Your task to perform on an android device: Search for Italian restaurants on Maps Image 0: 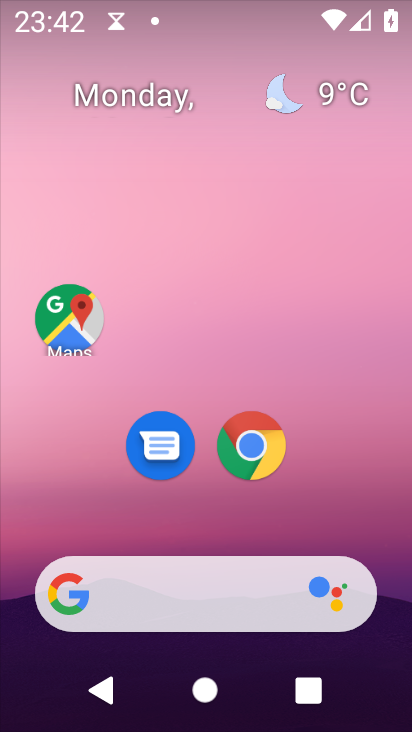
Step 0: drag from (230, 365) to (268, 4)
Your task to perform on an android device: Search for Italian restaurants on Maps Image 1: 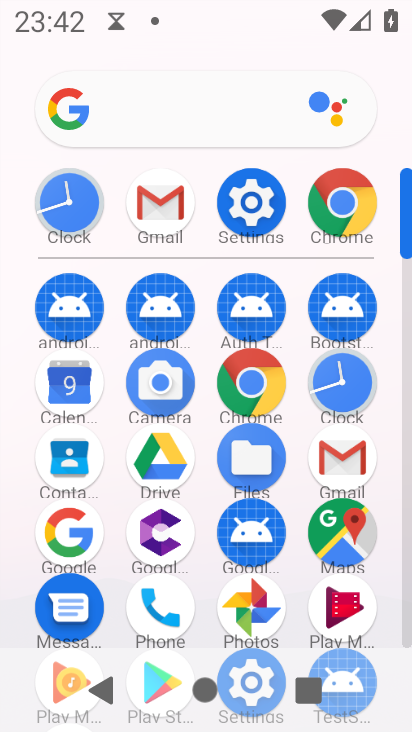
Step 1: click (352, 543)
Your task to perform on an android device: Search for Italian restaurants on Maps Image 2: 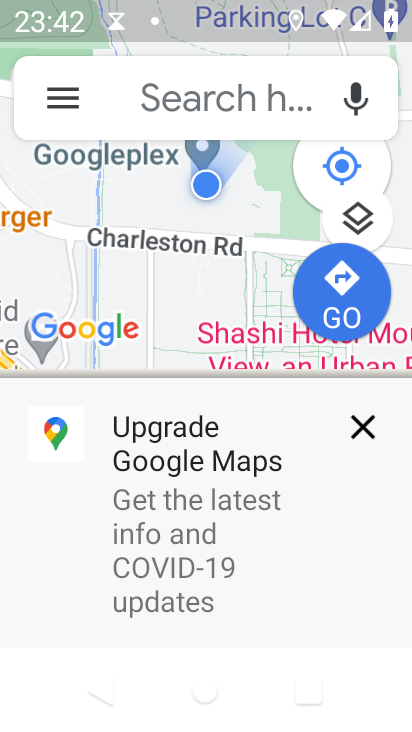
Step 2: click (235, 108)
Your task to perform on an android device: Search for Italian restaurants on Maps Image 3: 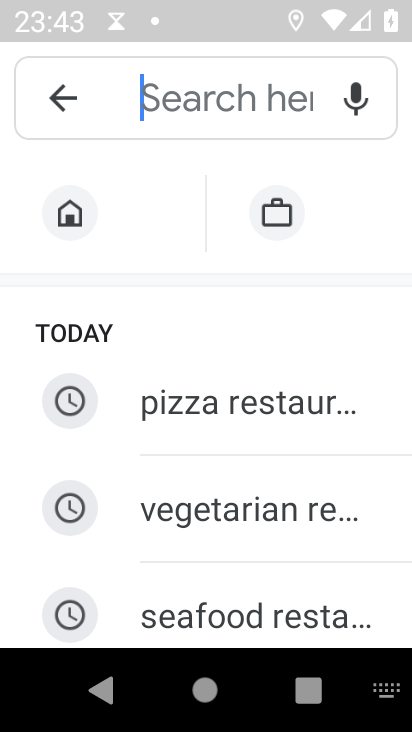
Step 3: type "italian restaurant"
Your task to perform on an android device: Search for Italian restaurants on Maps Image 4: 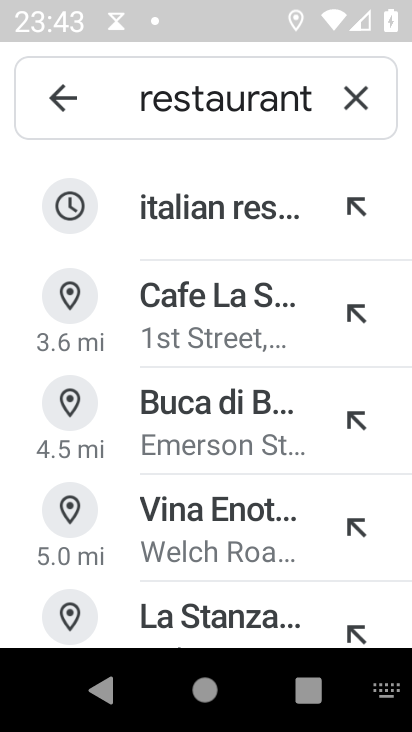
Step 4: click (189, 217)
Your task to perform on an android device: Search for Italian restaurants on Maps Image 5: 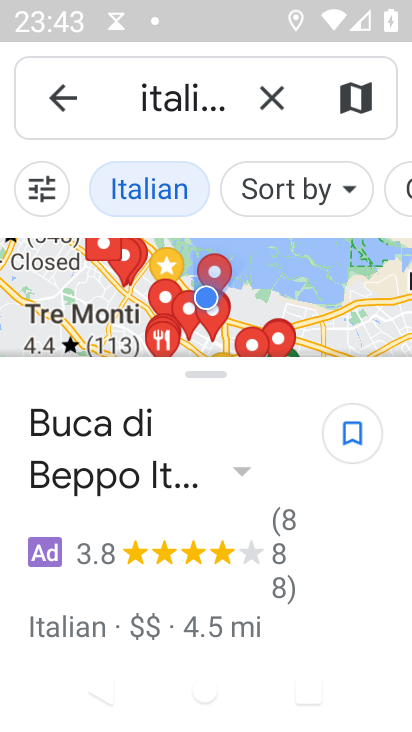
Step 5: task complete